Your task to perform on an android device: Find coffee shops on Maps Image 0: 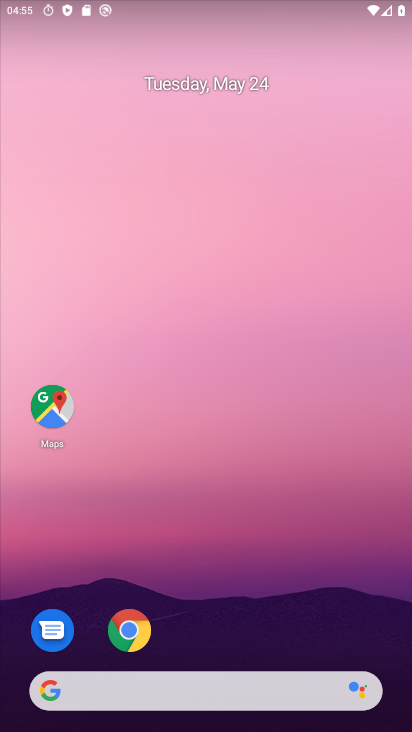
Step 0: click (65, 405)
Your task to perform on an android device: Find coffee shops on Maps Image 1: 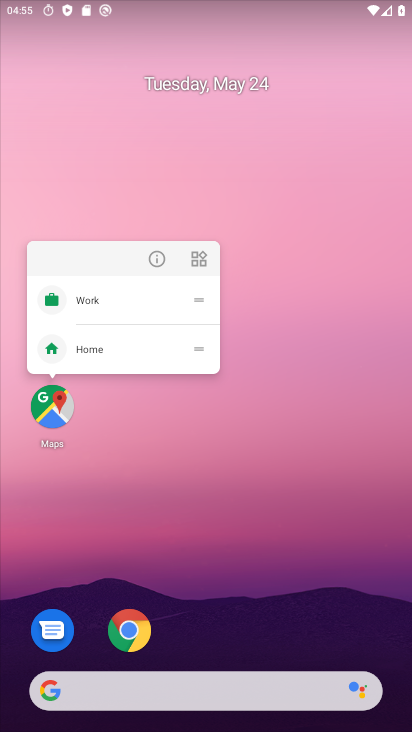
Step 1: click (60, 414)
Your task to perform on an android device: Find coffee shops on Maps Image 2: 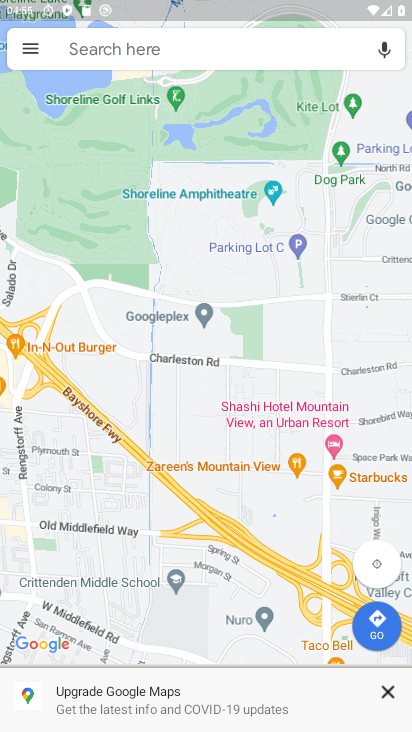
Step 2: click (158, 46)
Your task to perform on an android device: Find coffee shops on Maps Image 3: 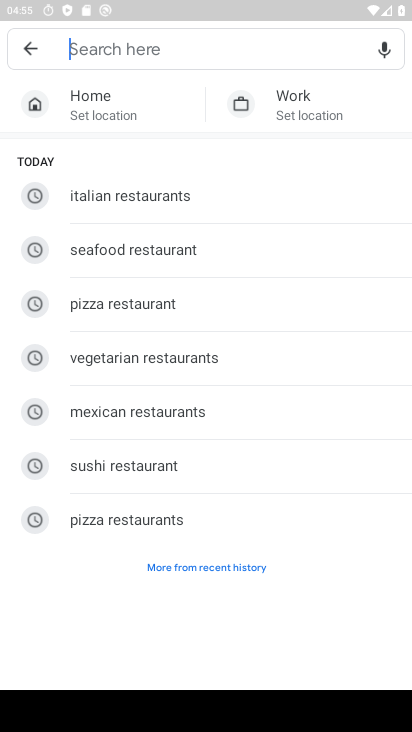
Step 3: type "coffee shop"
Your task to perform on an android device: Find coffee shops on Maps Image 4: 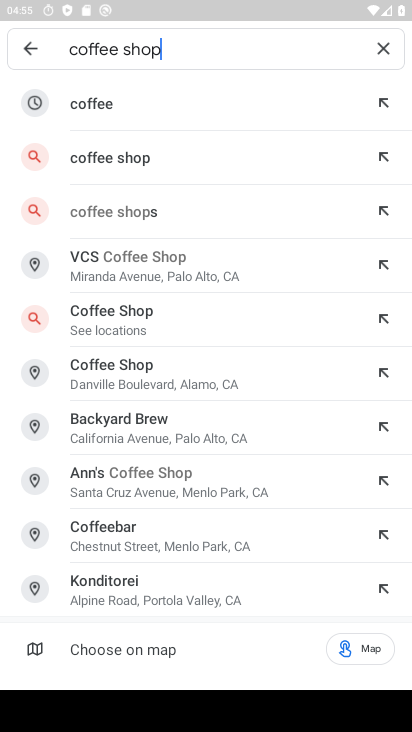
Step 4: click (162, 170)
Your task to perform on an android device: Find coffee shops on Maps Image 5: 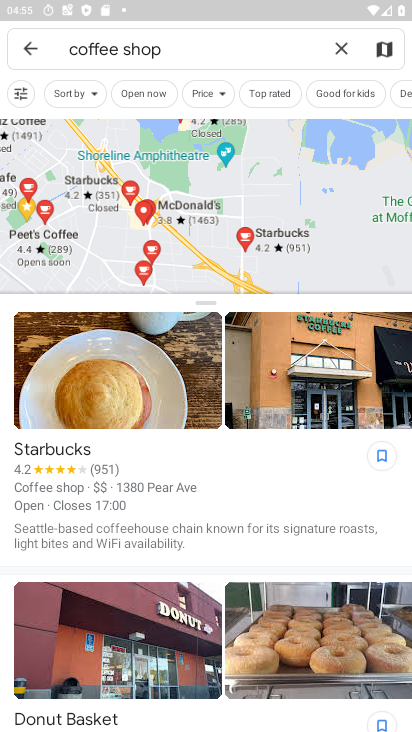
Step 5: task complete